Your task to perform on an android device: turn off smart reply in the gmail app Image 0: 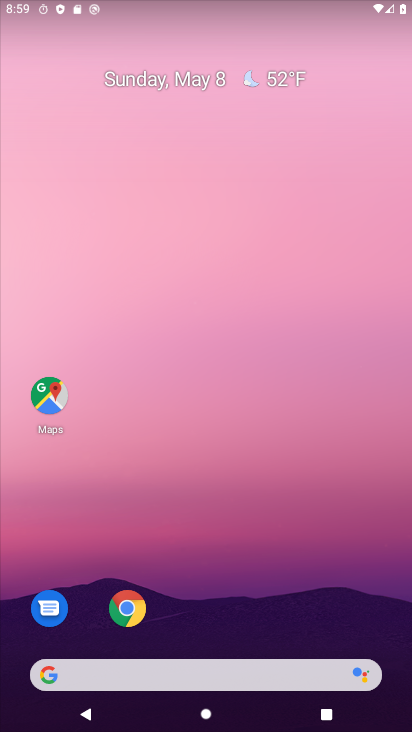
Step 0: drag from (256, 477) to (256, 49)
Your task to perform on an android device: turn off smart reply in the gmail app Image 1: 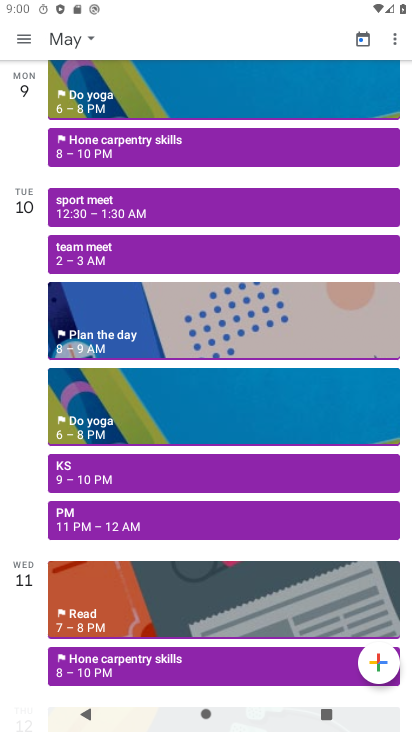
Step 1: press home button
Your task to perform on an android device: turn off smart reply in the gmail app Image 2: 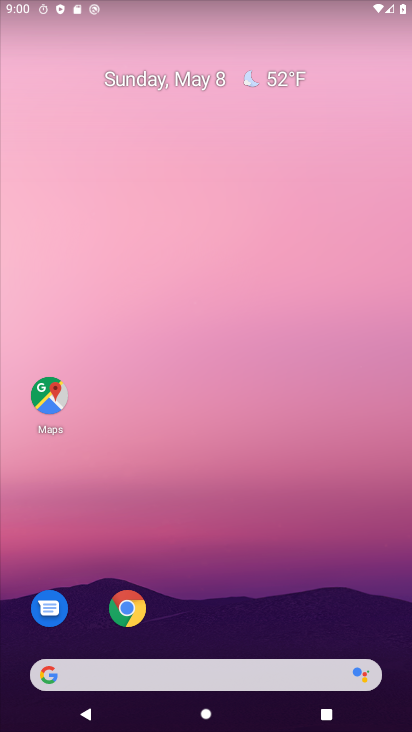
Step 2: drag from (268, 648) to (227, 12)
Your task to perform on an android device: turn off smart reply in the gmail app Image 3: 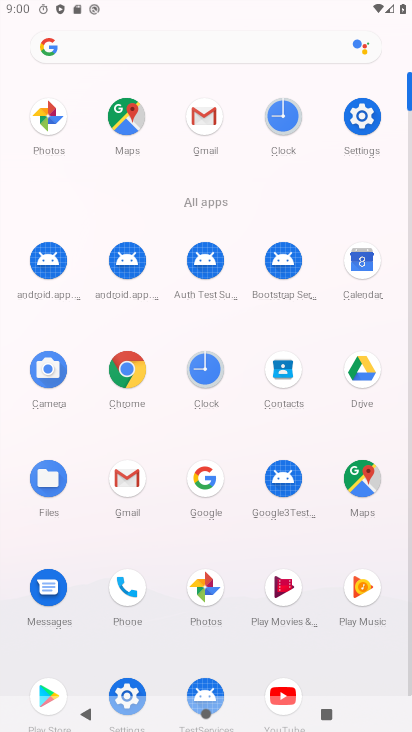
Step 3: click (116, 480)
Your task to perform on an android device: turn off smart reply in the gmail app Image 4: 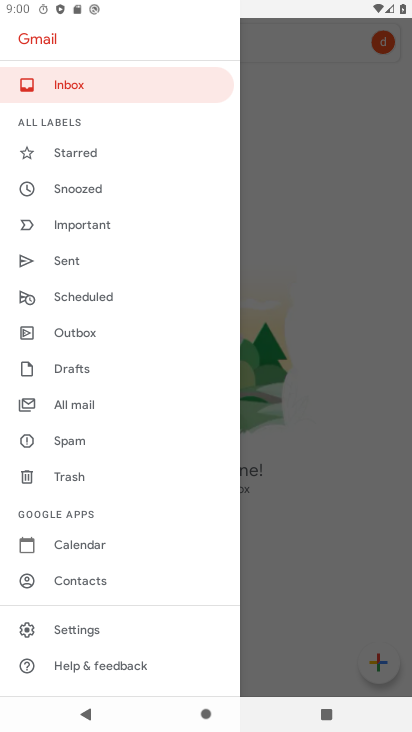
Step 4: click (113, 631)
Your task to perform on an android device: turn off smart reply in the gmail app Image 5: 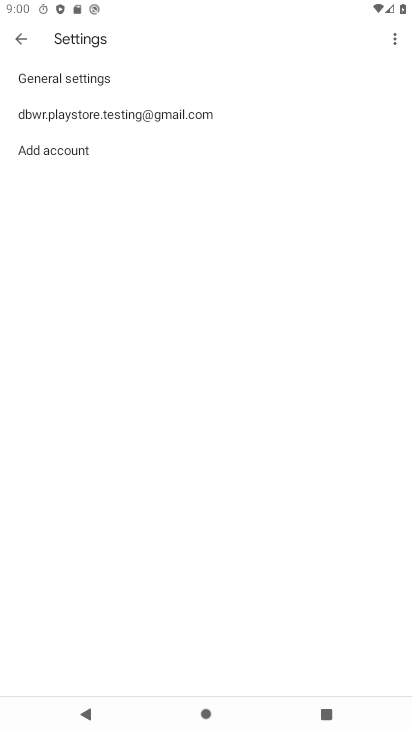
Step 5: click (103, 111)
Your task to perform on an android device: turn off smart reply in the gmail app Image 6: 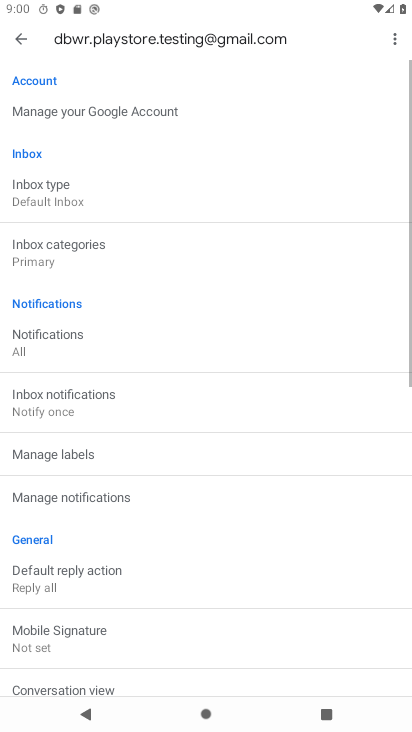
Step 6: drag from (113, 656) to (157, 220)
Your task to perform on an android device: turn off smart reply in the gmail app Image 7: 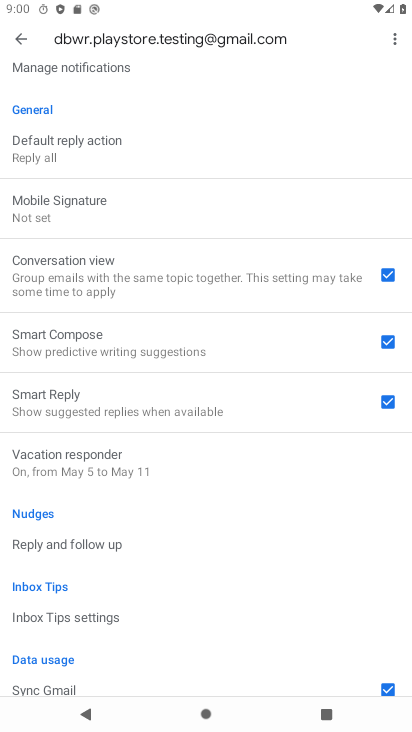
Step 7: click (394, 397)
Your task to perform on an android device: turn off smart reply in the gmail app Image 8: 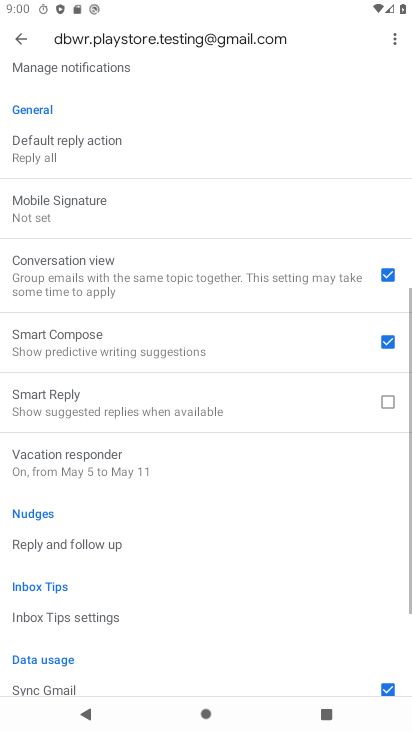
Step 8: task complete